Your task to perform on an android device: Check the news Image 0: 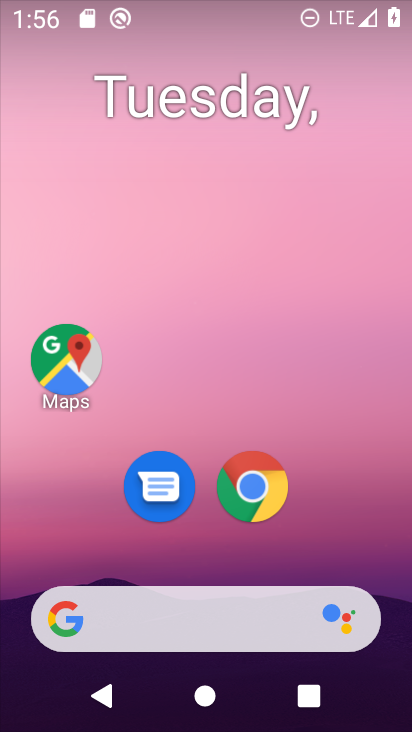
Step 0: drag from (214, 574) to (146, 54)
Your task to perform on an android device: Check the news Image 1: 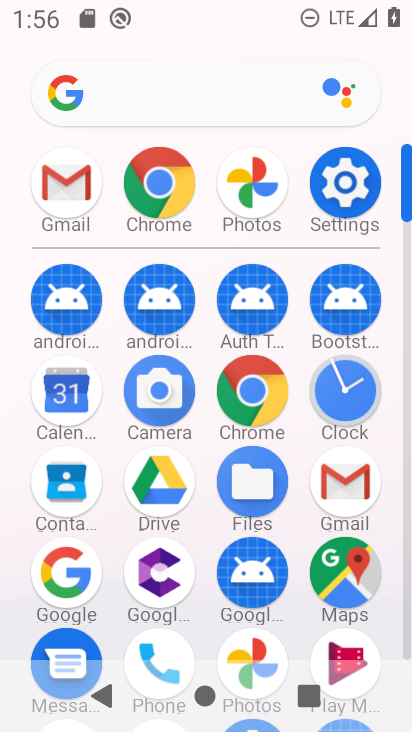
Step 1: click (59, 571)
Your task to perform on an android device: Check the news Image 2: 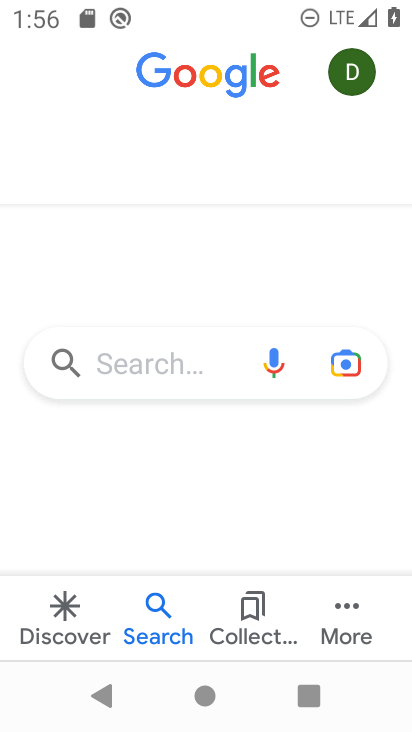
Step 2: drag from (165, 561) to (146, 10)
Your task to perform on an android device: Check the news Image 3: 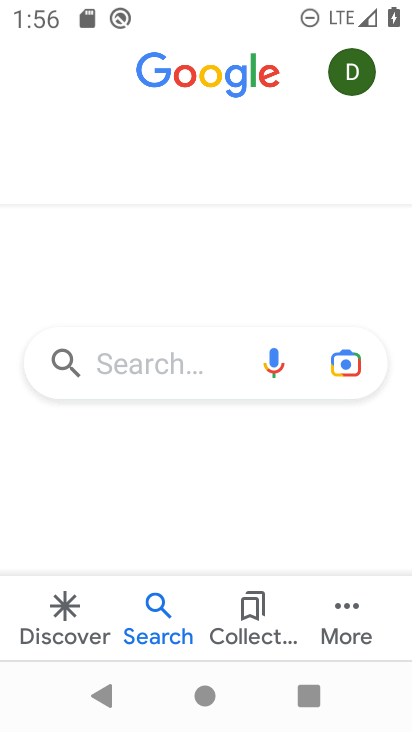
Step 3: click (49, 615)
Your task to perform on an android device: Check the news Image 4: 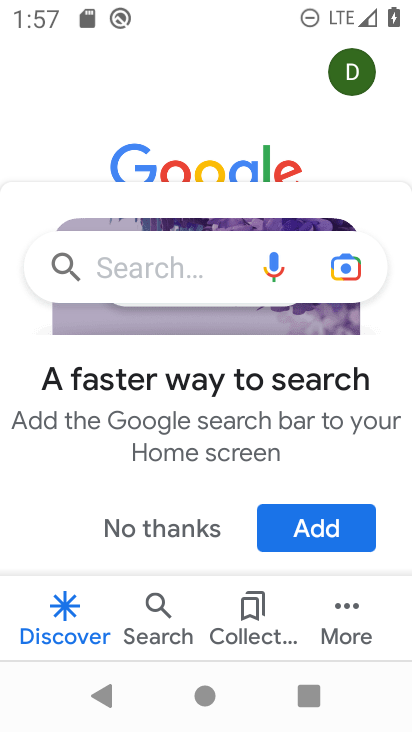
Step 4: task complete